Your task to perform on an android device: allow cookies in the chrome app Image 0: 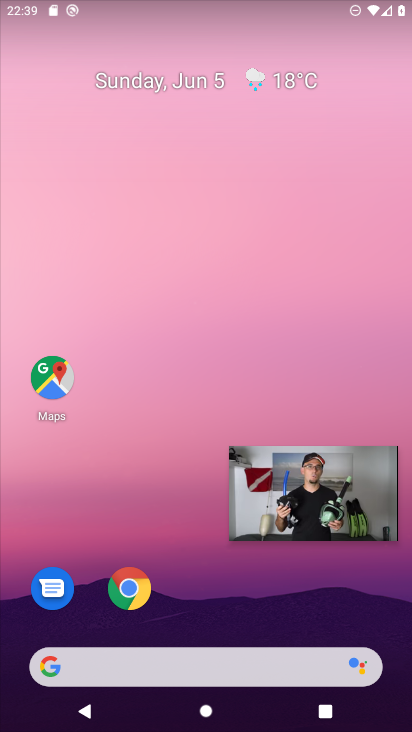
Step 0: drag from (221, 610) to (222, 264)
Your task to perform on an android device: allow cookies in the chrome app Image 1: 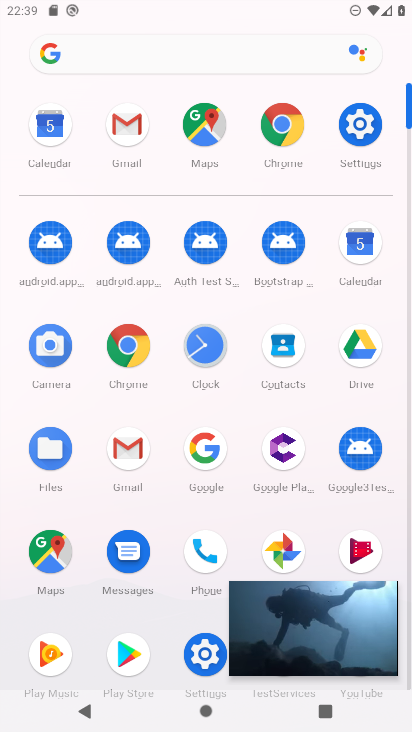
Step 1: click (281, 140)
Your task to perform on an android device: allow cookies in the chrome app Image 2: 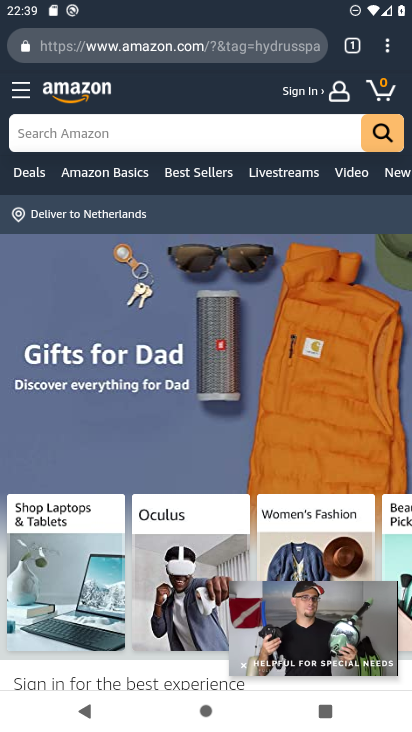
Step 2: click (392, 54)
Your task to perform on an android device: allow cookies in the chrome app Image 3: 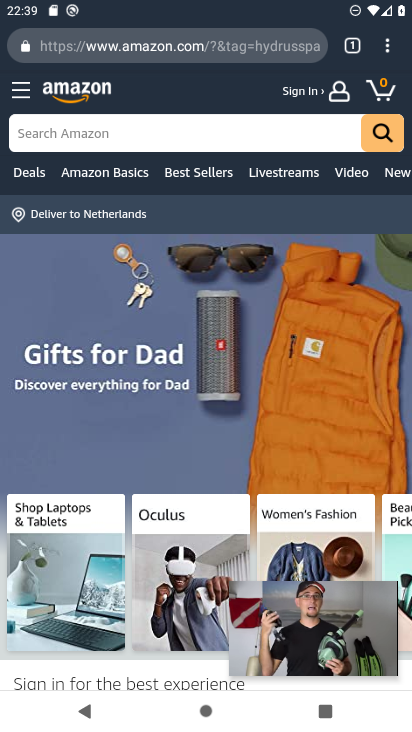
Step 3: click (389, 54)
Your task to perform on an android device: allow cookies in the chrome app Image 4: 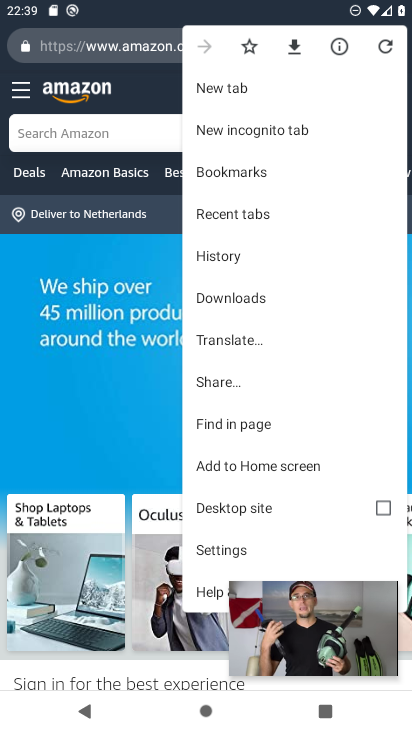
Step 4: click (251, 544)
Your task to perform on an android device: allow cookies in the chrome app Image 5: 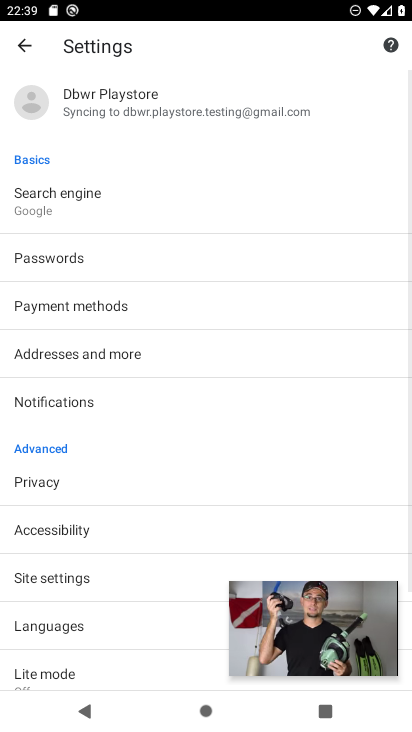
Step 5: drag from (281, 408) to (288, 318)
Your task to perform on an android device: allow cookies in the chrome app Image 6: 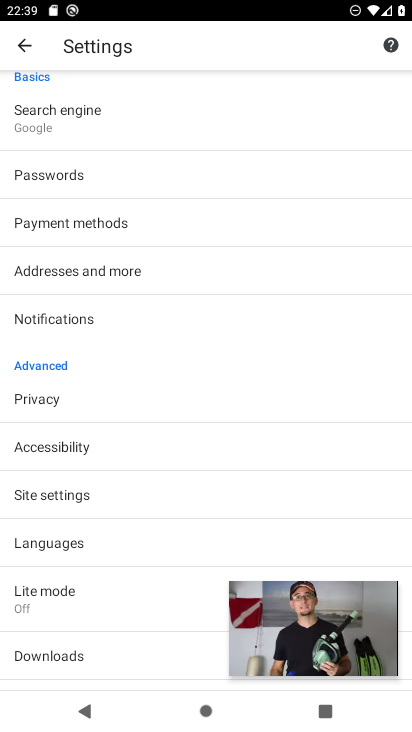
Step 6: drag from (267, 432) to (273, 313)
Your task to perform on an android device: allow cookies in the chrome app Image 7: 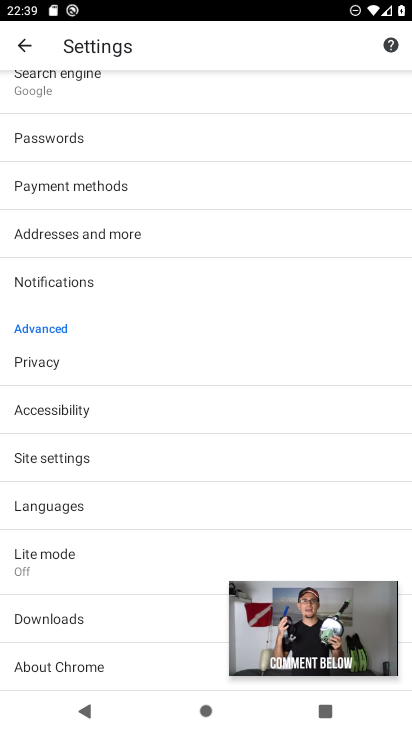
Step 7: click (132, 457)
Your task to perform on an android device: allow cookies in the chrome app Image 8: 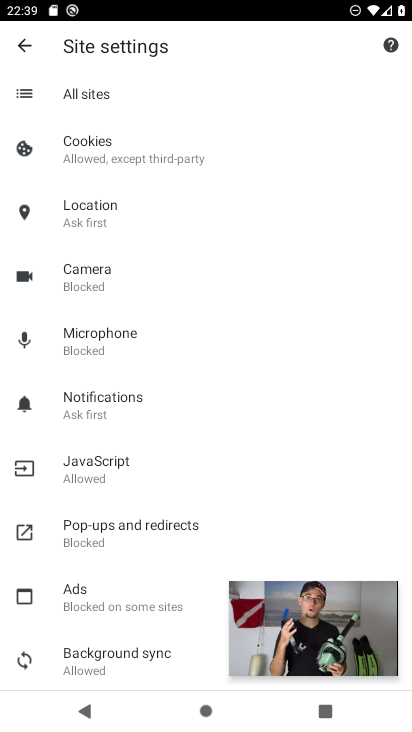
Step 8: drag from (230, 463) to (240, 371)
Your task to perform on an android device: allow cookies in the chrome app Image 9: 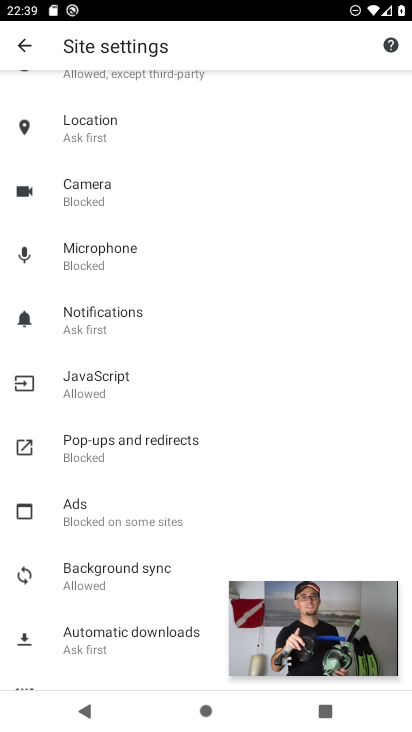
Step 9: drag from (251, 459) to (261, 329)
Your task to perform on an android device: allow cookies in the chrome app Image 10: 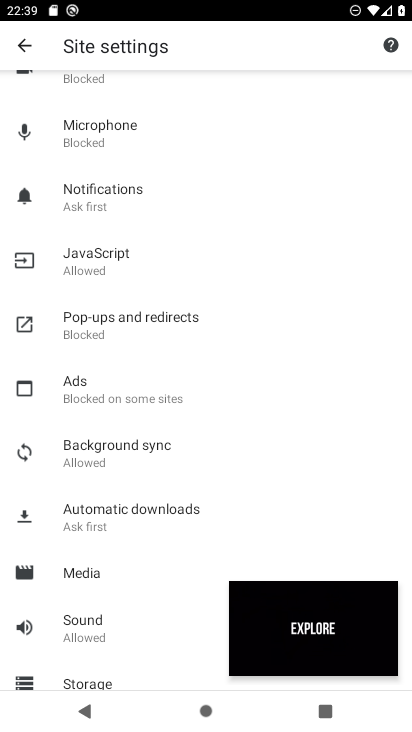
Step 10: drag from (266, 196) to (263, 353)
Your task to perform on an android device: allow cookies in the chrome app Image 11: 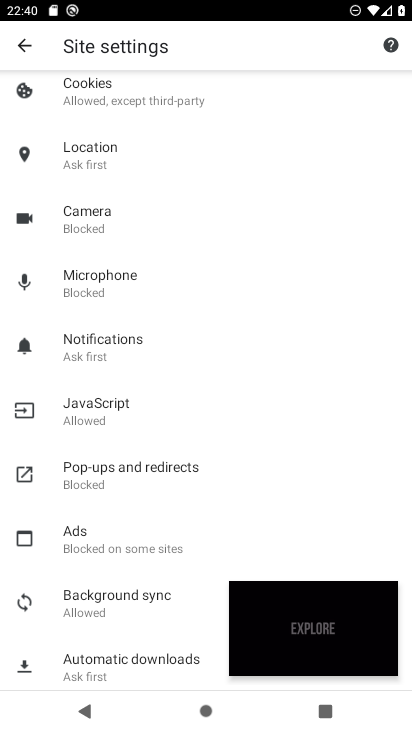
Step 11: drag from (247, 228) to (256, 363)
Your task to perform on an android device: allow cookies in the chrome app Image 12: 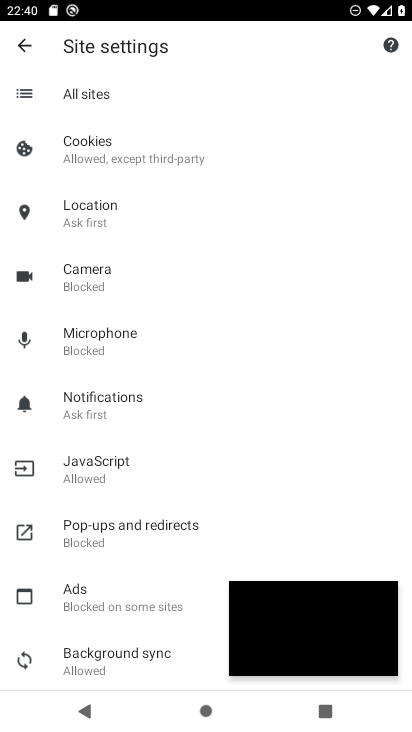
Step 12: click (174, 167)
Your task to perform on an android device: allow cookies in the chrome app Image 13: 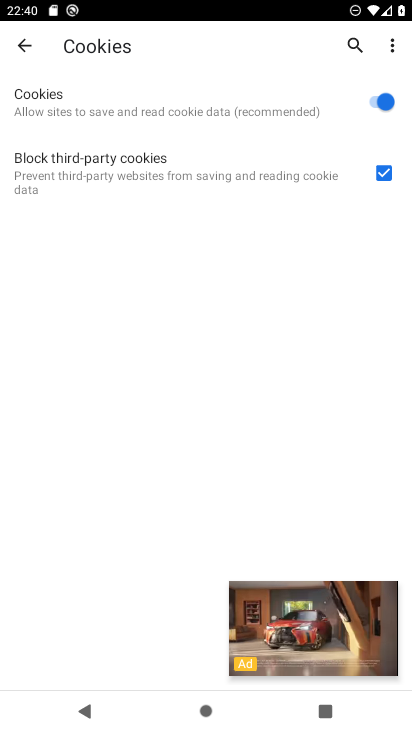
Step 13: task complete